Your task to perform on an android device: Open the phone app and click the voicemail tab. Image 0: 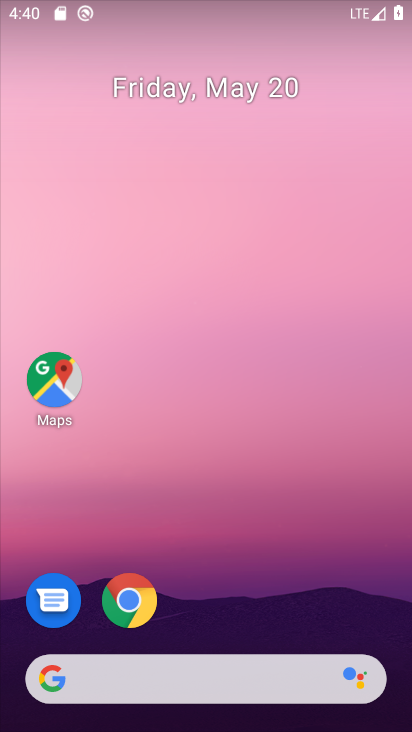
Step 0: drag from (169, 72) to (161, 35)
Your task to perform on an android device: Open the phone app and click the voicemail tab. Image 1: 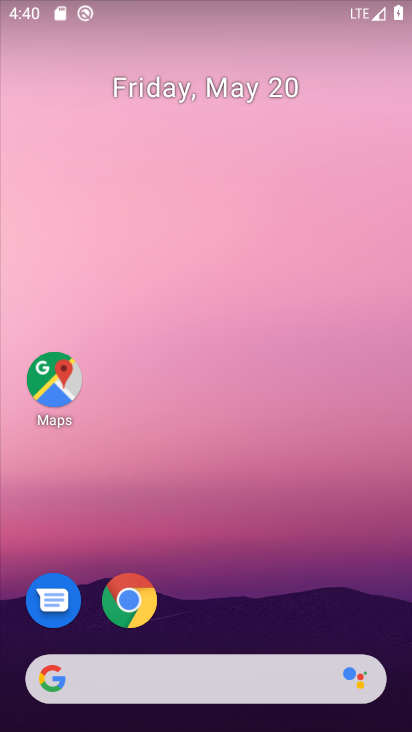
Step 1: drag from (242, 508) to (226, 10)
Your task to perform on an android device: Open the phone app and click the voicemail tab. Image 2: 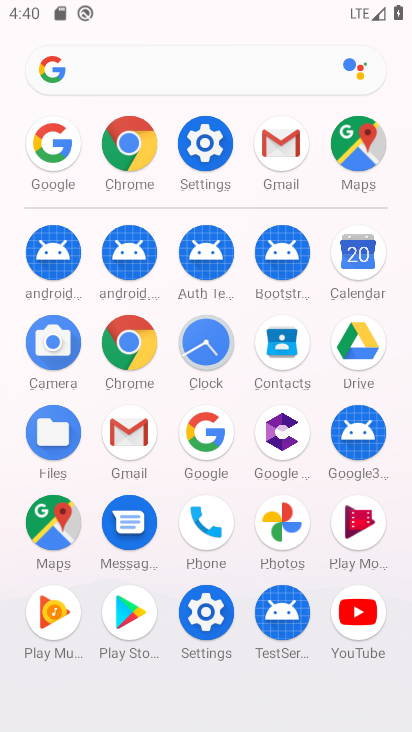
Step 2: click (218, 533)
Your task to perform on an android device: Open the phone app and click the voicemail tab. Image 3: 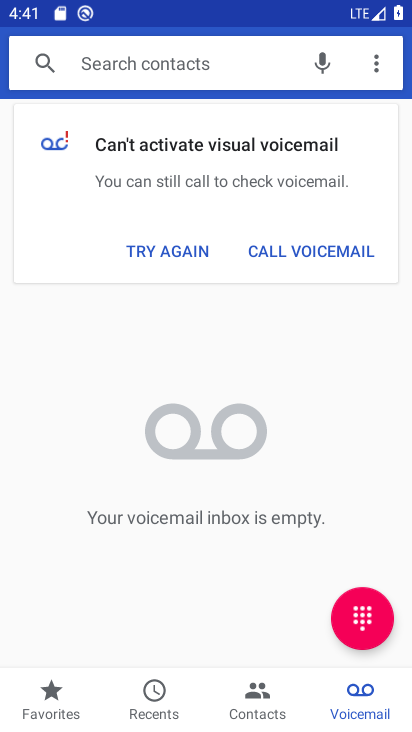
Step 3: task complete